Your task to perform on an android device: set the stopwatch Image 0: 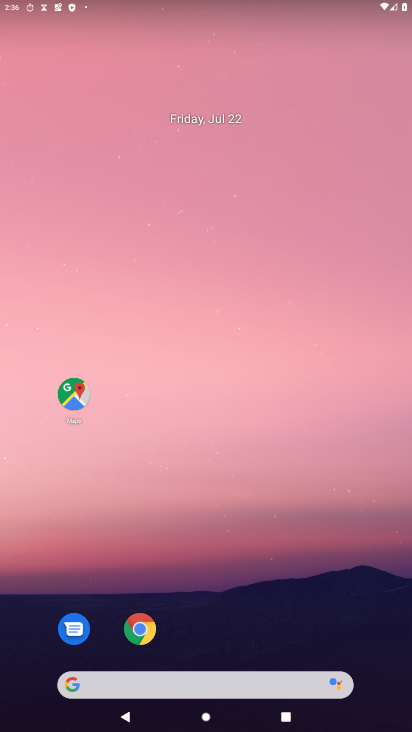
Step 0: drag from (242, 685) to (348, 164)
Your task to perform on an android device: set the stopwatch Image 1: 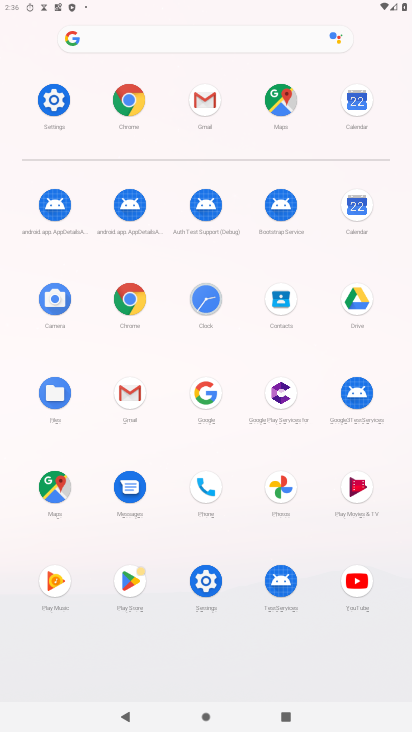
Step 1: click (219, 291)
Your task to perform on an android device: set the stopwatch Image 2: 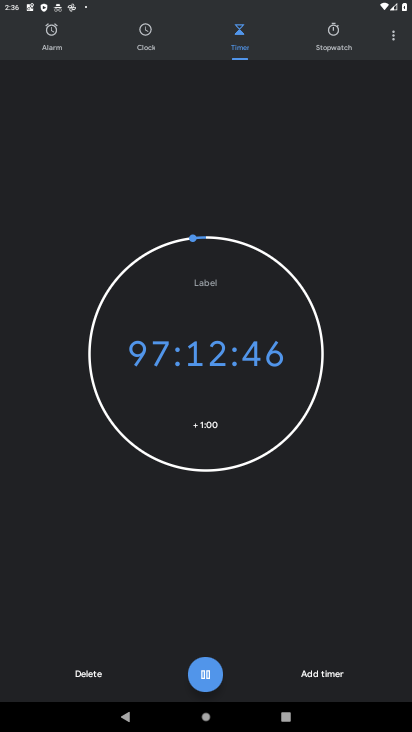
Step 2: click (340, 39)
Your task to perform on an android device: set the stopwatch Image 3: 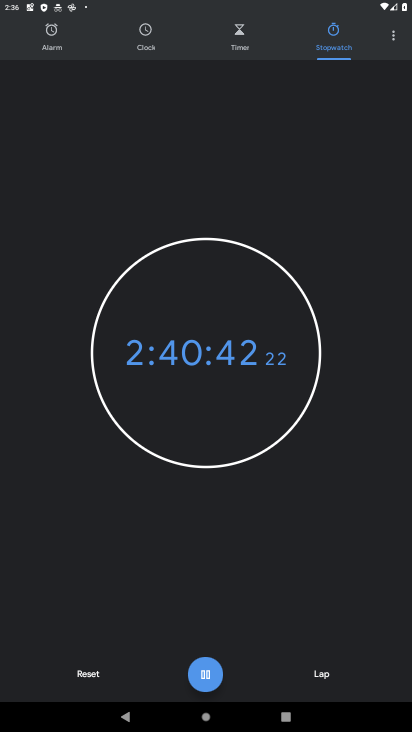
Step 3: task complete